Your task to perform on an android device: Search for the new Steph Curry shoes on Nike.com Image 0: 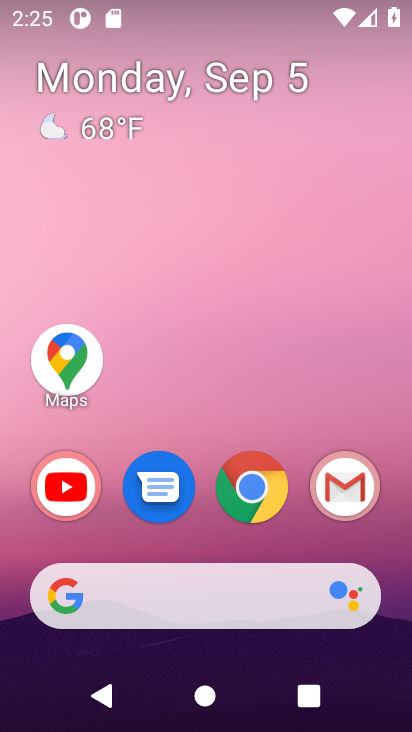
Step 0: click (250, 482)
Your task to perform on an android device: Search for the new Steph Curry shoes on Nike.com Image 1: 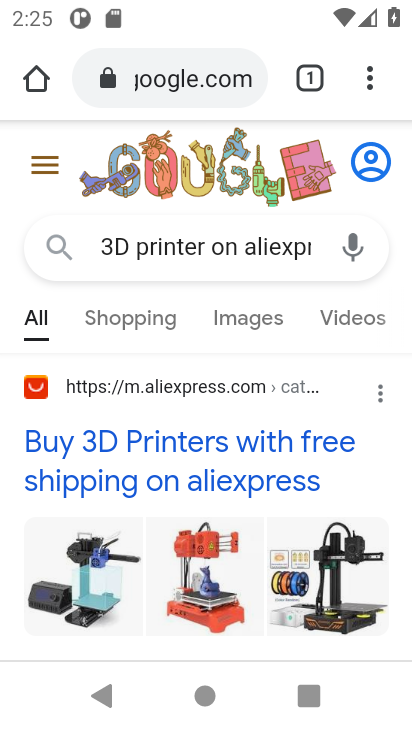
Step 1: click (159, 71)
Your task to perform on an android device: Search for the new Steph Curry shoes on Nike.com Image 2: 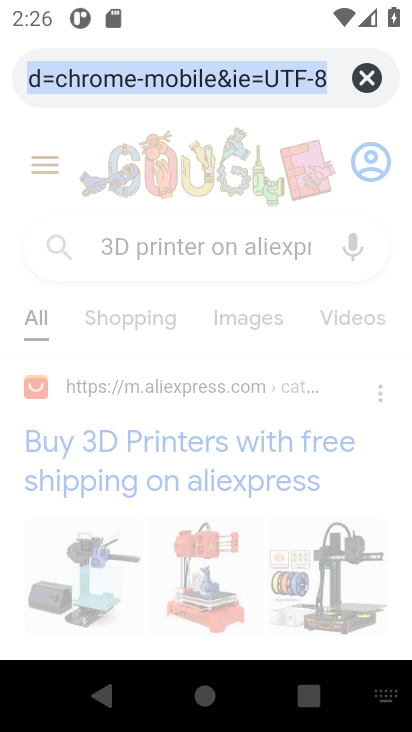
Step 2: click (366, 71)
Your task to perform on an android device: Search for the new Steph Curry shoes on Nike.com Image 3: 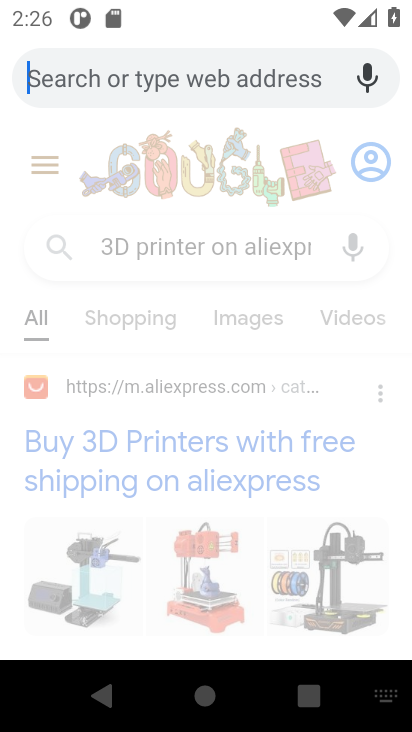
Step 3: type "the new Steph Curry shoes on Nike.com"
Your task to perform on an android device: Search for the new Steph Curry shoes on Nike.com Image 4: 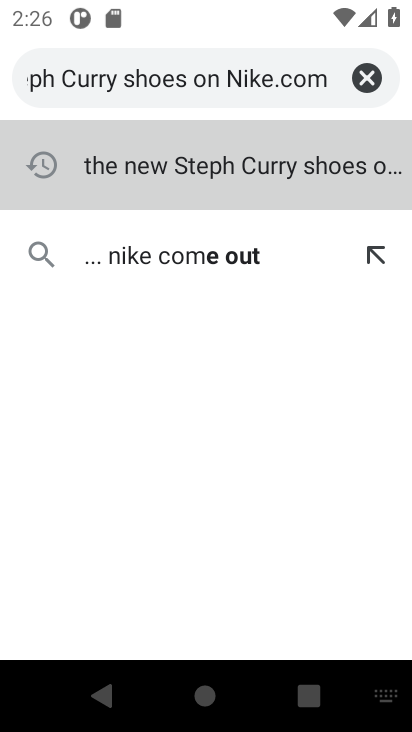
Step 4: click (170, 156)
Your task to perform on an android device: Search for the new Steph Curry shoes on Nike.com Image 5: 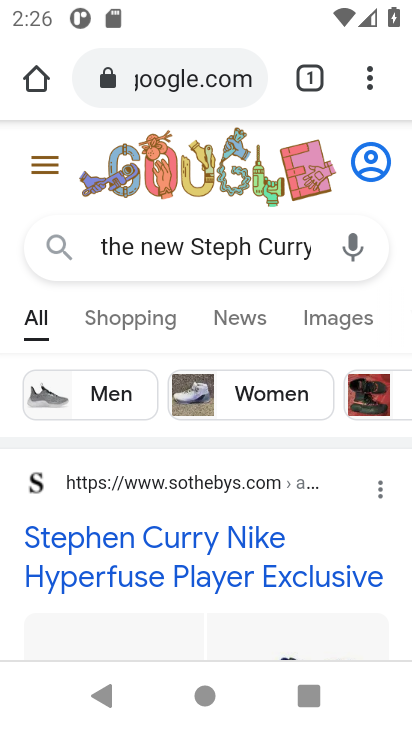
Step 5: task complete